Your task to perform on an android device: Go to CNN.com Image 0: 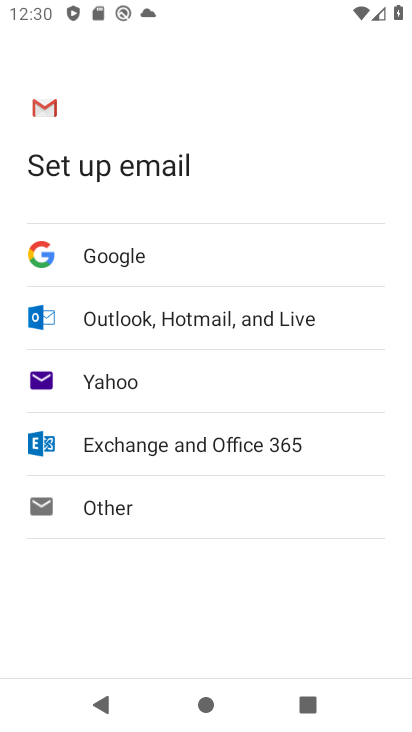
Step 0: press home button
Your task to perform on an android device: Go to CNN.com Image 1: 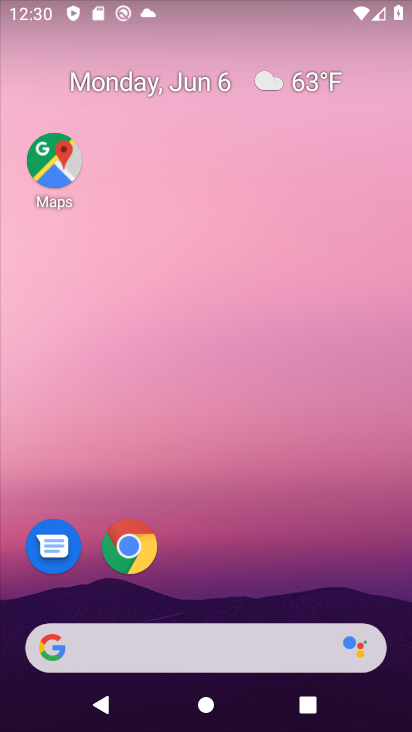
Step 1: click (133, 548)
Your task to perform on an android device: Go to CNN.com Image 2: 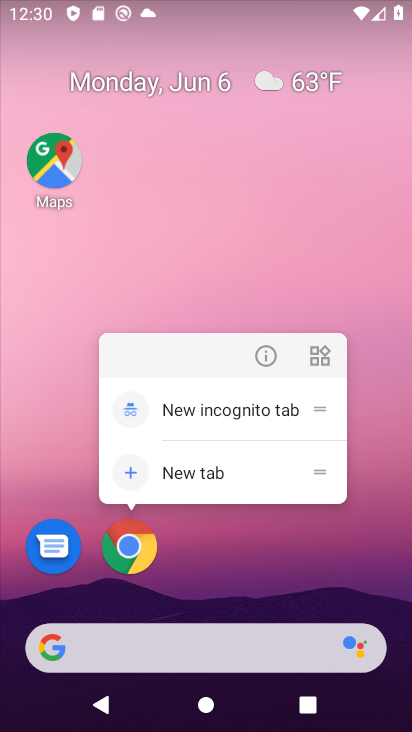
Step 2: click (132, 547)
Your task to perform on an android device: Go to CNN.com Image 3: 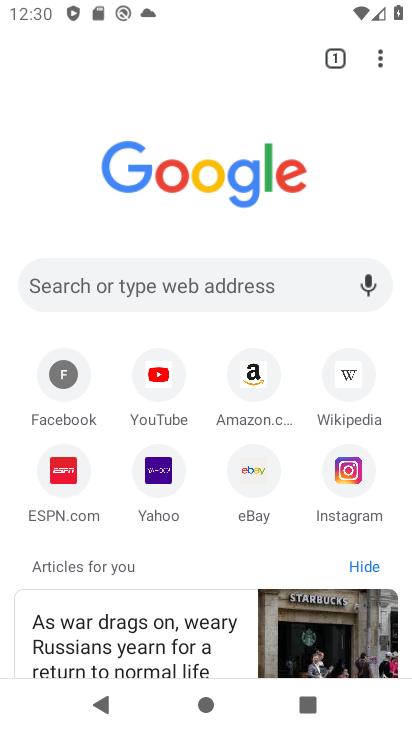
Step 3: click (178, 288)
Your task to perform on an android device: Go to CNN.com Image 4: 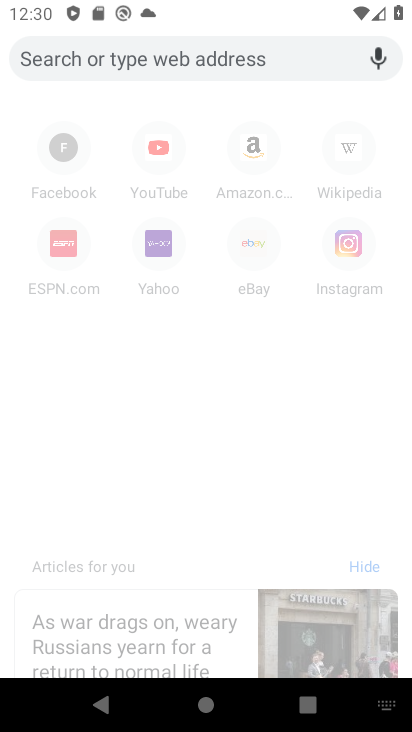
Step 4: type "cnn"
Your task to perform on an android device: Go to CNN.com Image 5: 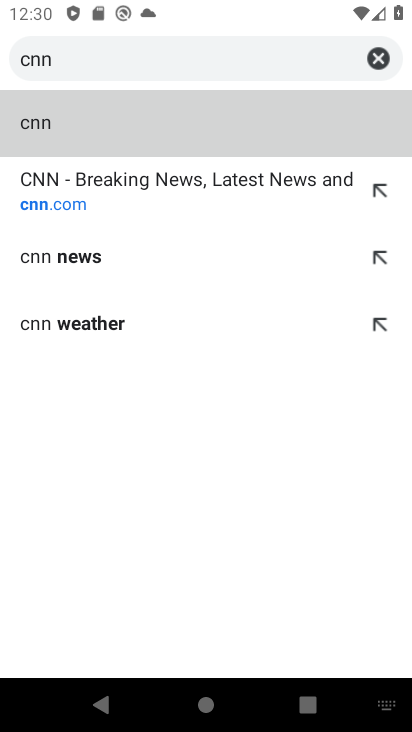
Step 5: click (55, 179)
Your task to perform on an android device: Go to CNN.com Image 6: 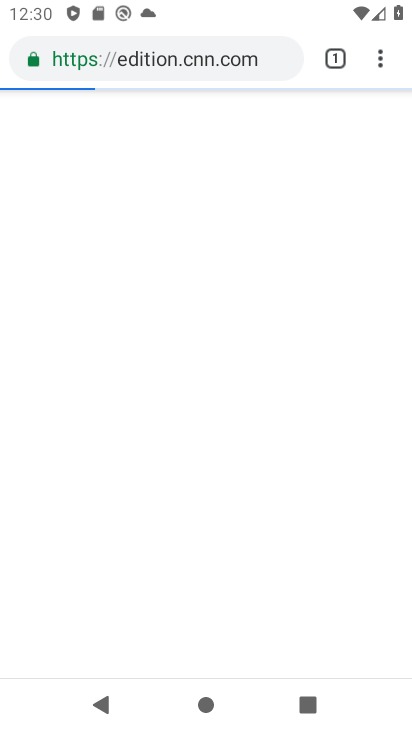
Step 6: task complete